Your task to perform on an android device: check out phone information Image 0: 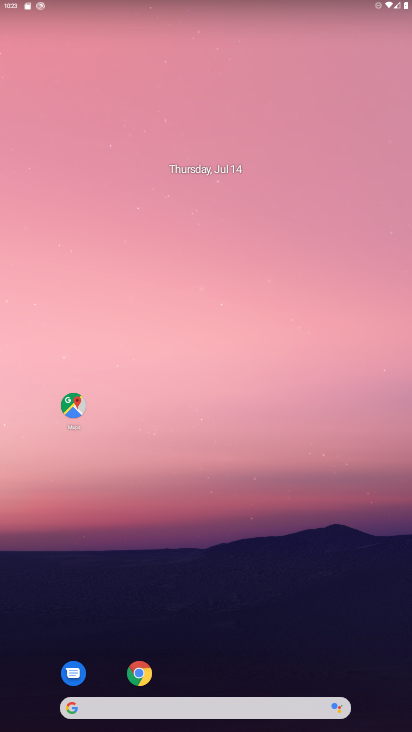
Step 0: drag from (262, 510) to (262, 7)
Your task to perform on an android device: check out phone information Image 1: 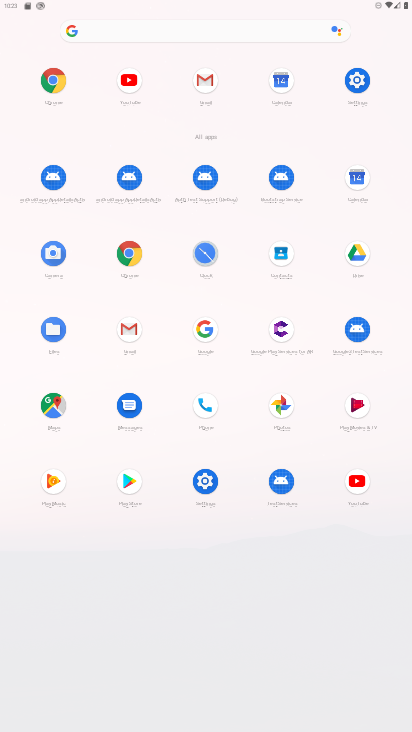
Step 1: click (207, 482)
Your task to perform on an android device: check out phone information Image 2: 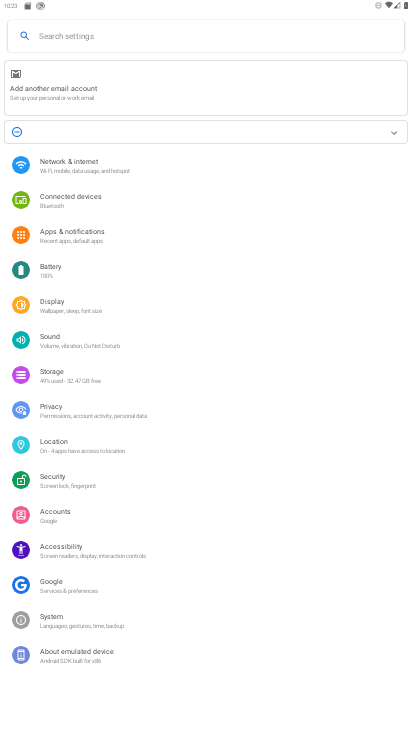
Step 2: click (83, 650)
Your task to perform on an android device: check out phone information Image 3: 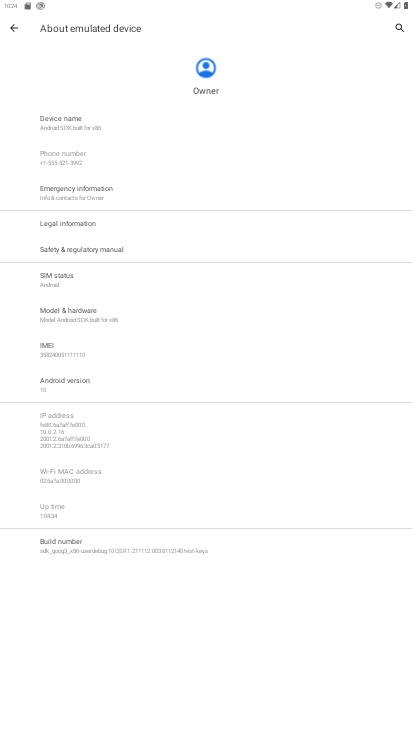
Step 3: task complete